Your task to perform on an android device: Open Chrome and go to settings Image 0: 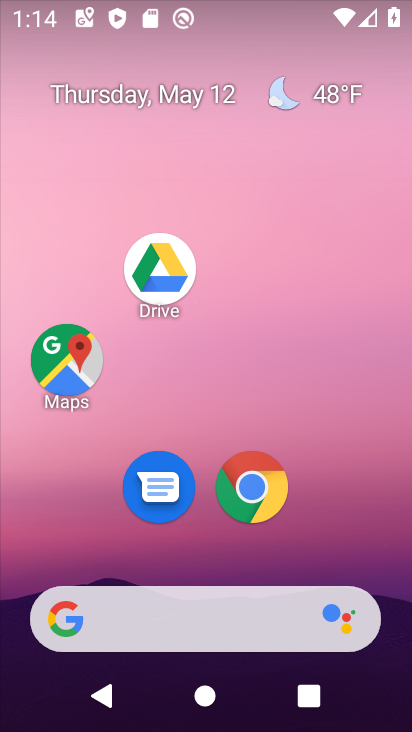
Step 0: click (257, 476)
Your task to perform on an android device: Open Chrome and go to settings Image 1: 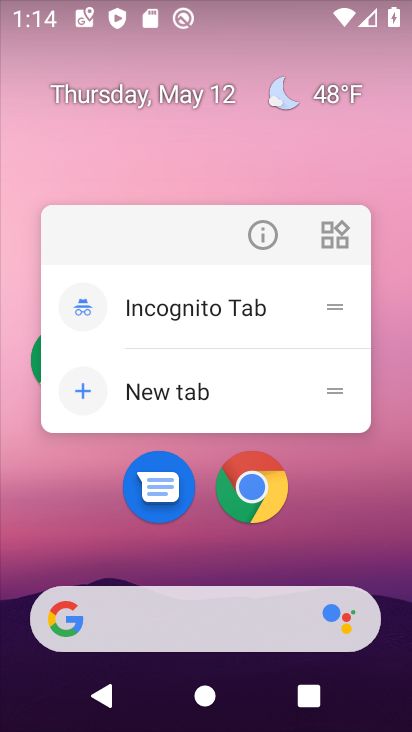
Step 1: click (261, 492)
Your task to perform on an android device: Open Chrome and go to settings Image 2: 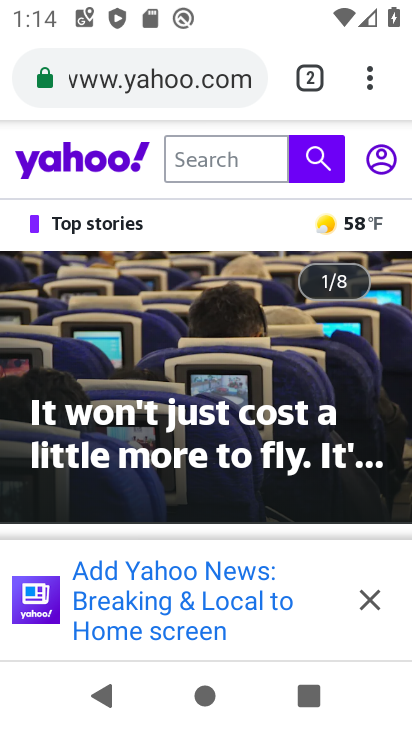
Step 2: click (362, 66)
Your task to perform on an android device: Open Chrome and go to settings Image 3: 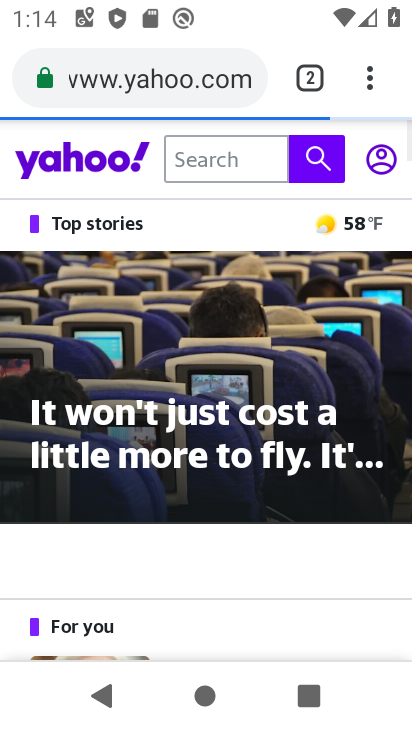
Step 3: task complete